Your task to perform on an android device: Go to location settings Image 0: 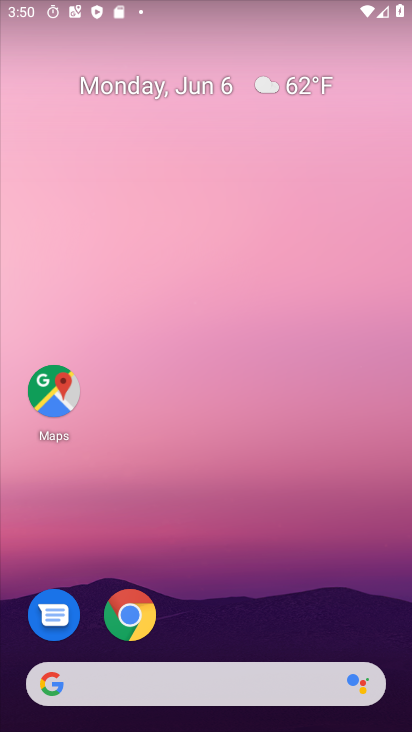
Step 0: drag from (280, 676) to (295, 1)
Your task to perform on an android device: Go to location settings Image 1: 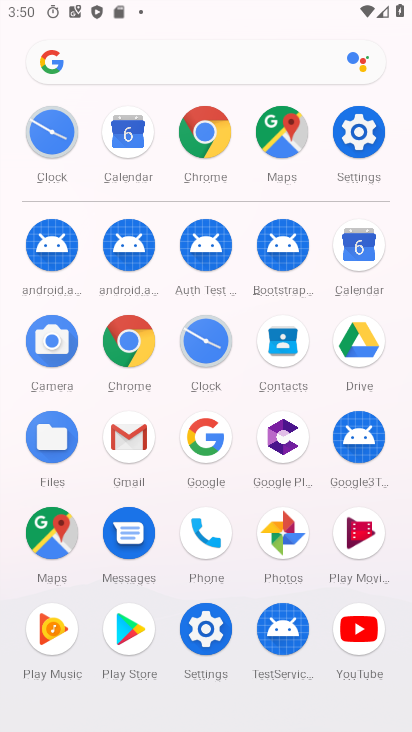
Step 1: click (351, 124)
Your task to perform on an android device: Go to location settings Image 2: 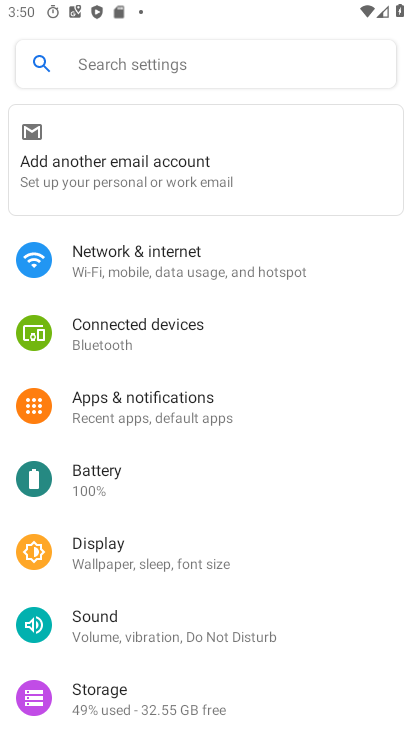
Step 2: drag from (212, 636) to (250, 125)
Your task to perform on an android device: Go to location settings Image 3: 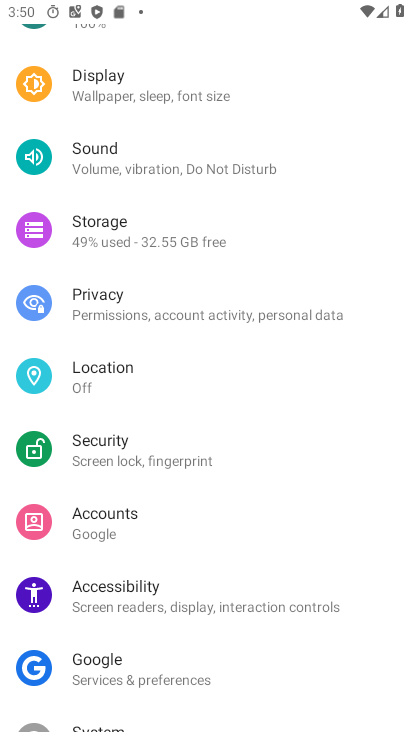
Step 3: click (168, 384)
Your task to perform on an android device: Go to location settings Image 4: 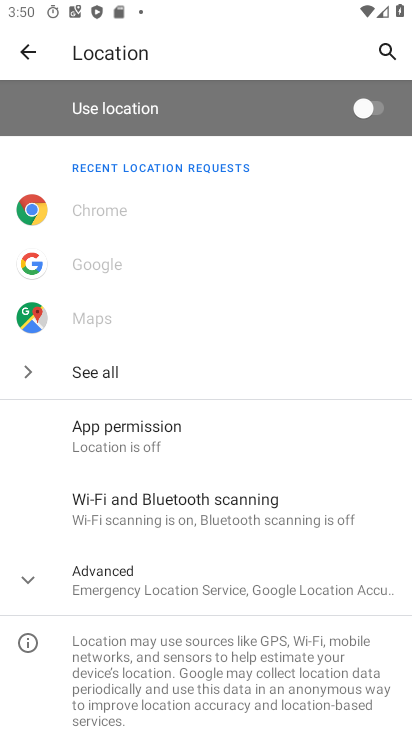
Step 4: task complete